Your task to perform on an android device: open app "McDonald's" (install if not already installed) and go to login screen Image 0: 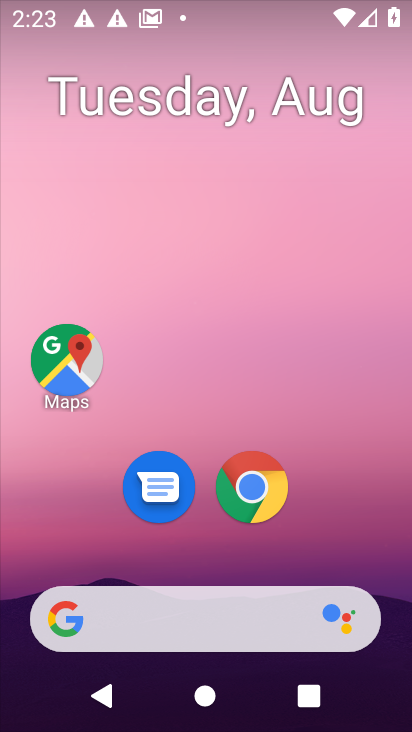
Step 0: drag from (206, 611) to (270, 38)
Your task to perform on an android device: open app "McDonald's" (install if not already installed) and go to login screen Image 1: 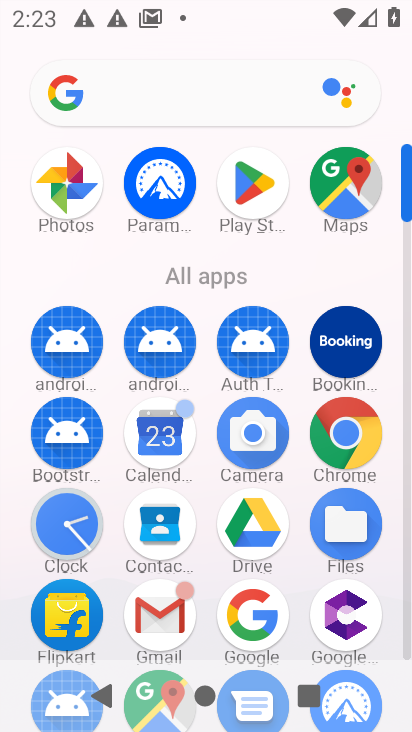
Step 1: click (256, 186)
Your task to perform on an android device: open app "McDonald's" (install if not already installed) and go to login screen Image 2: 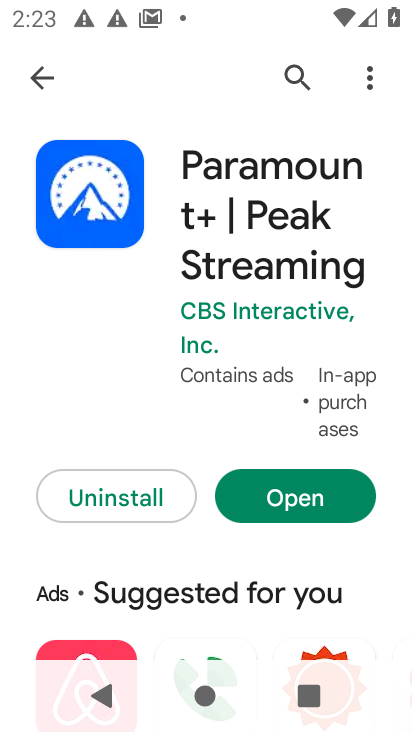
Step 2: press back button
Your task to perform on an android device: open app "McDonald's" (install if not already installed) and go to login screen Image 3: 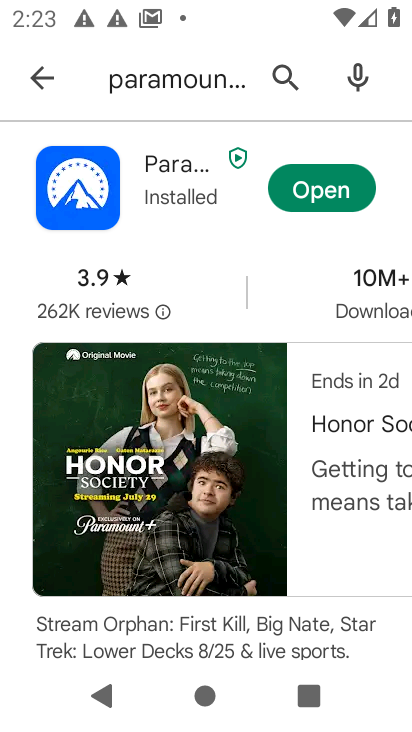
Step 3: press back button
Your task to perform on an android device: open app "McDonald's" (install if not already installed) and go to login screen Image 4: 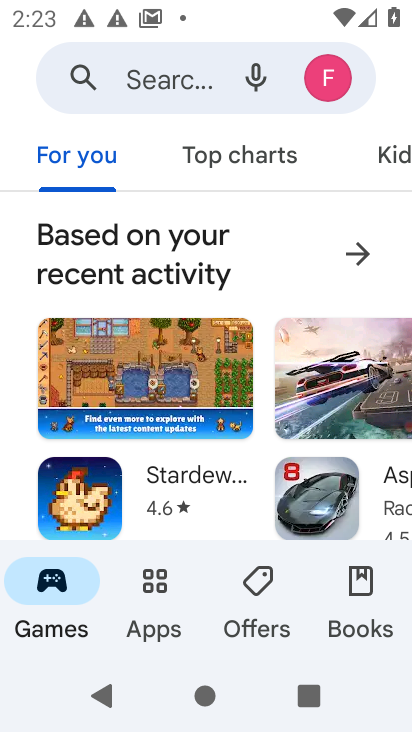
Step 4: click (182, 86)
Your task to perform on an android device: open app "McDonald's" (install if not already installed) and go to login screen Image 5: 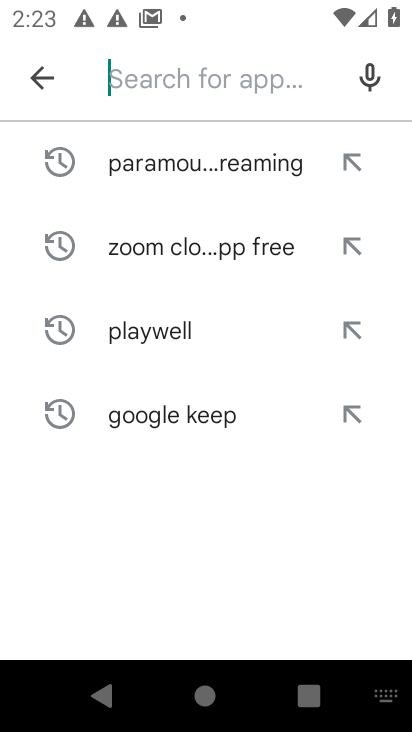
Step 5: type "McDonal's"
Your task to perform on an android device: open app "McDonald's" (install if not already installed) and go to login screen Image 6: 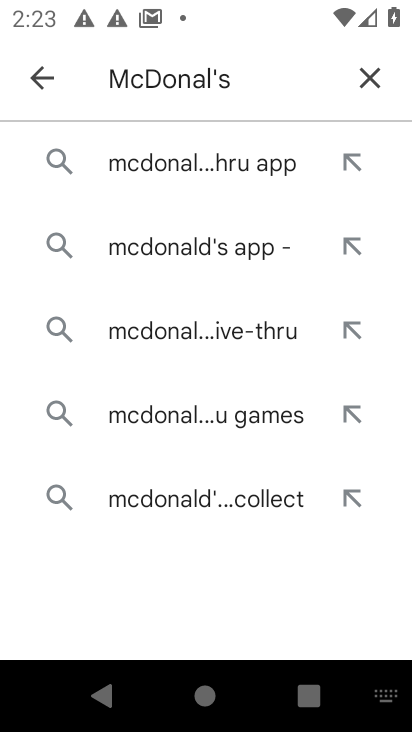
Step 6: click (197, 167)
Your task to perform on an android device: open app "McDonald's" (install if not already installed) and go to login screen Image 7: 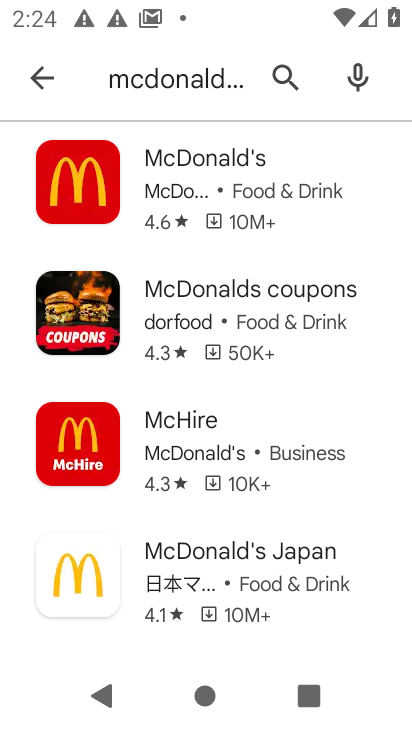
Step 7: click (230, 157)
Your task to perform on an android device: open app "McDonald's" (install if not already installed) and go to login screen Image 8: 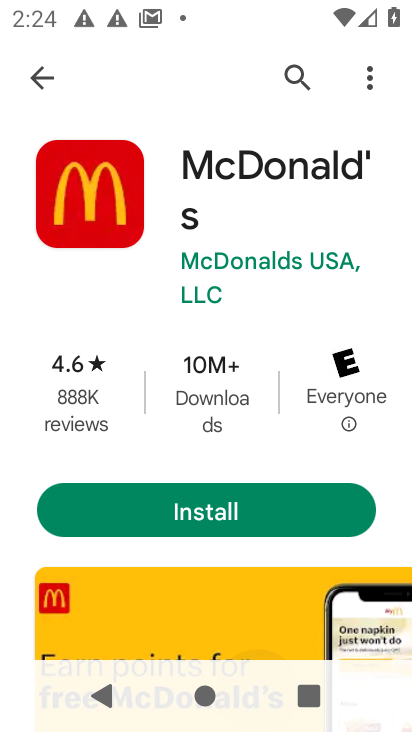
Step 8: click (210, 515)
Your task to perform on an android device: open app "McDonald's" (install if not already installed) and go to login screen Image 9: 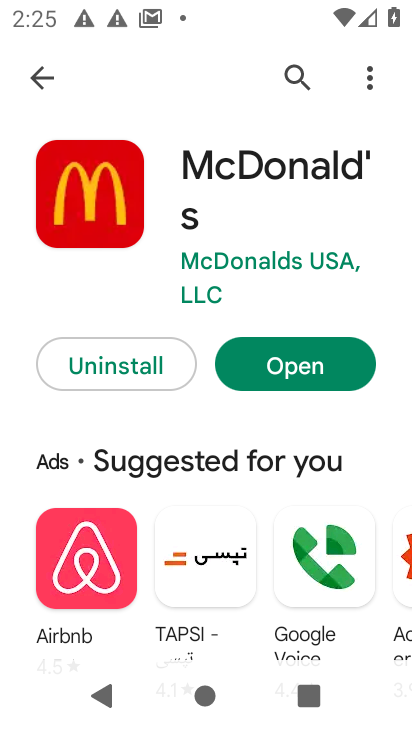
Step 9: click (291, 374)
Your task to perform on an android device: open app "McDonald's" (install if not already installed) and go to login screen Image 10: 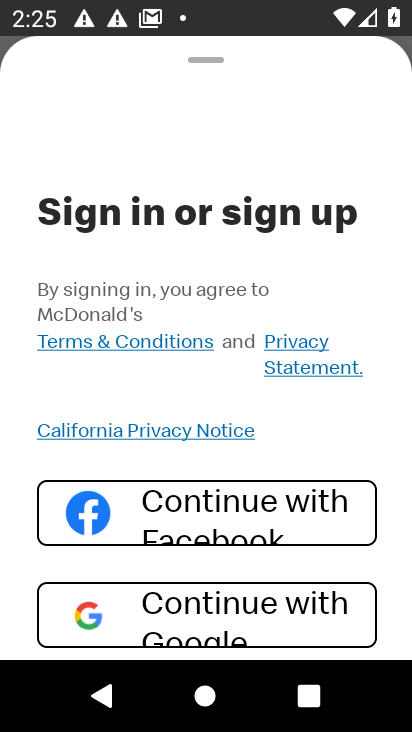
Step 10: click (148, 613)
Your task to perform on an android device: open app "McDonald's" (install if not already installed) and go to login screen Image 11: 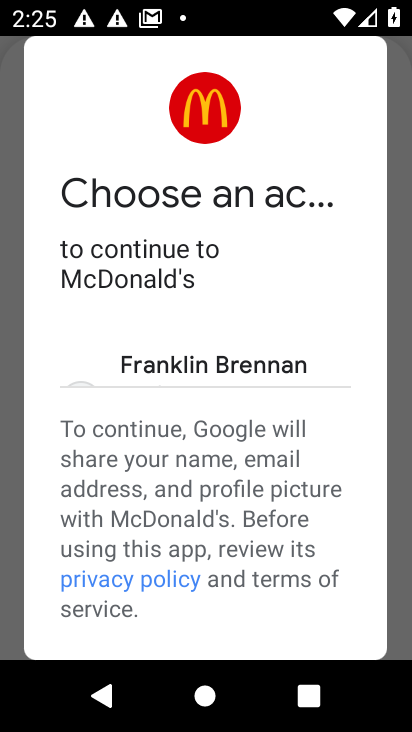
Step 11: task complete